Your task to perform on an android device: Open maps Image 0: 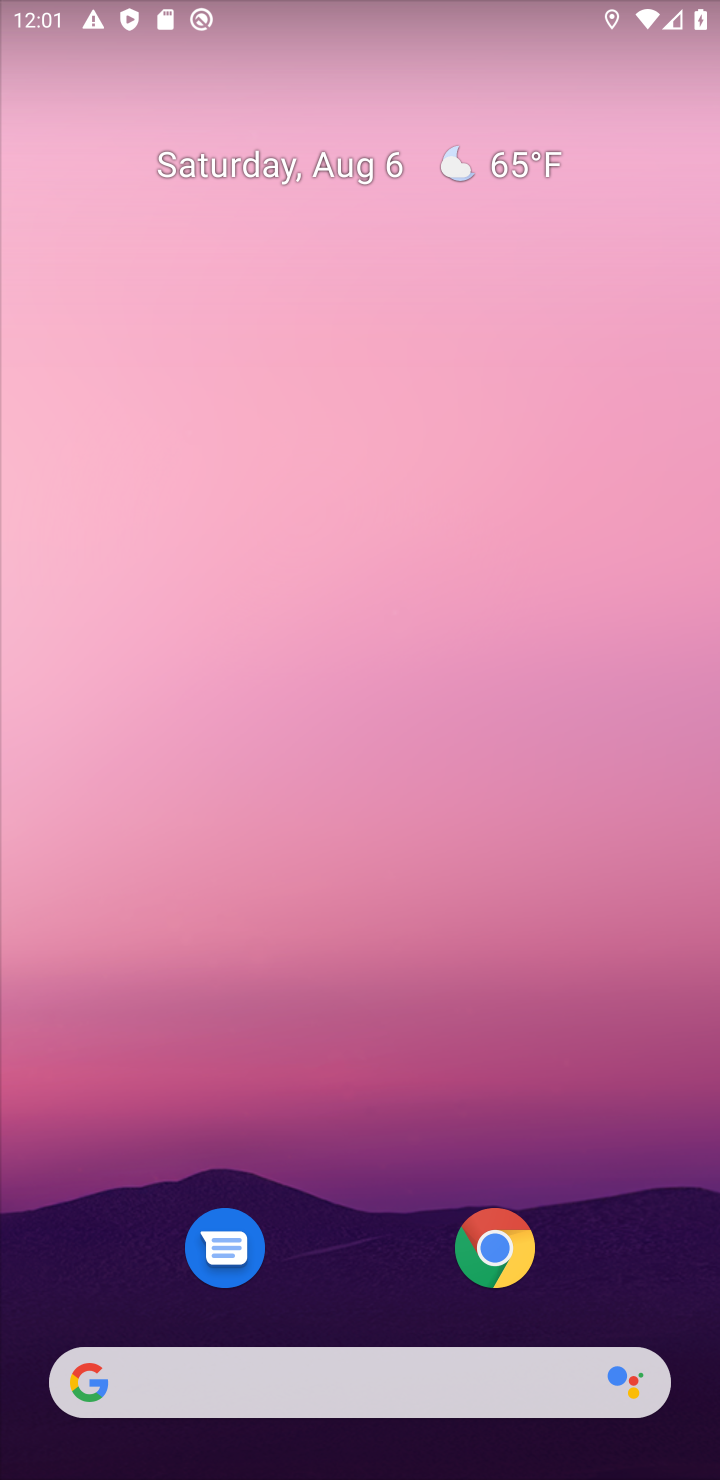
Step 0: drag from (366, 1311) to (353, 59)
Your task to perform on an android device: Open maps Image 1: 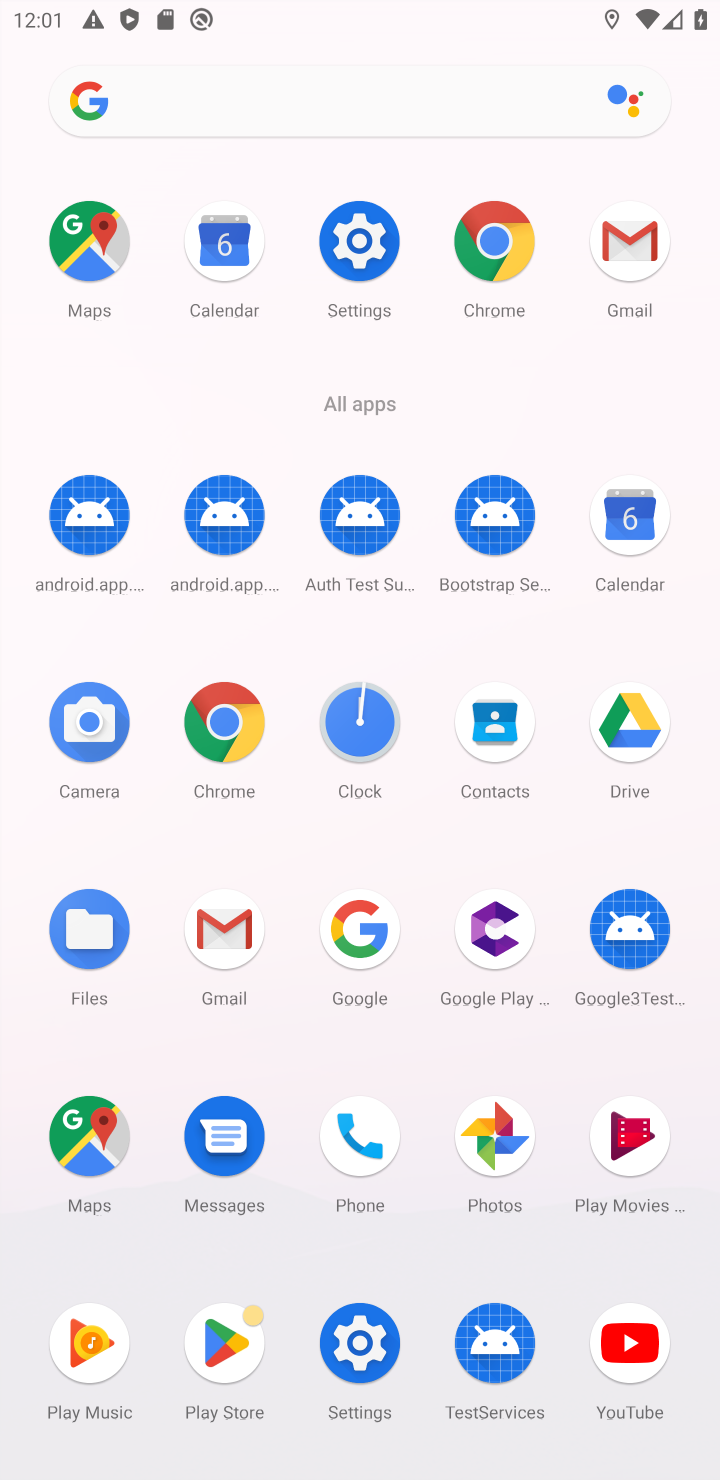
Step 1: click (95, 1127)
Your task to perform on an android device: Open maps Image 2: 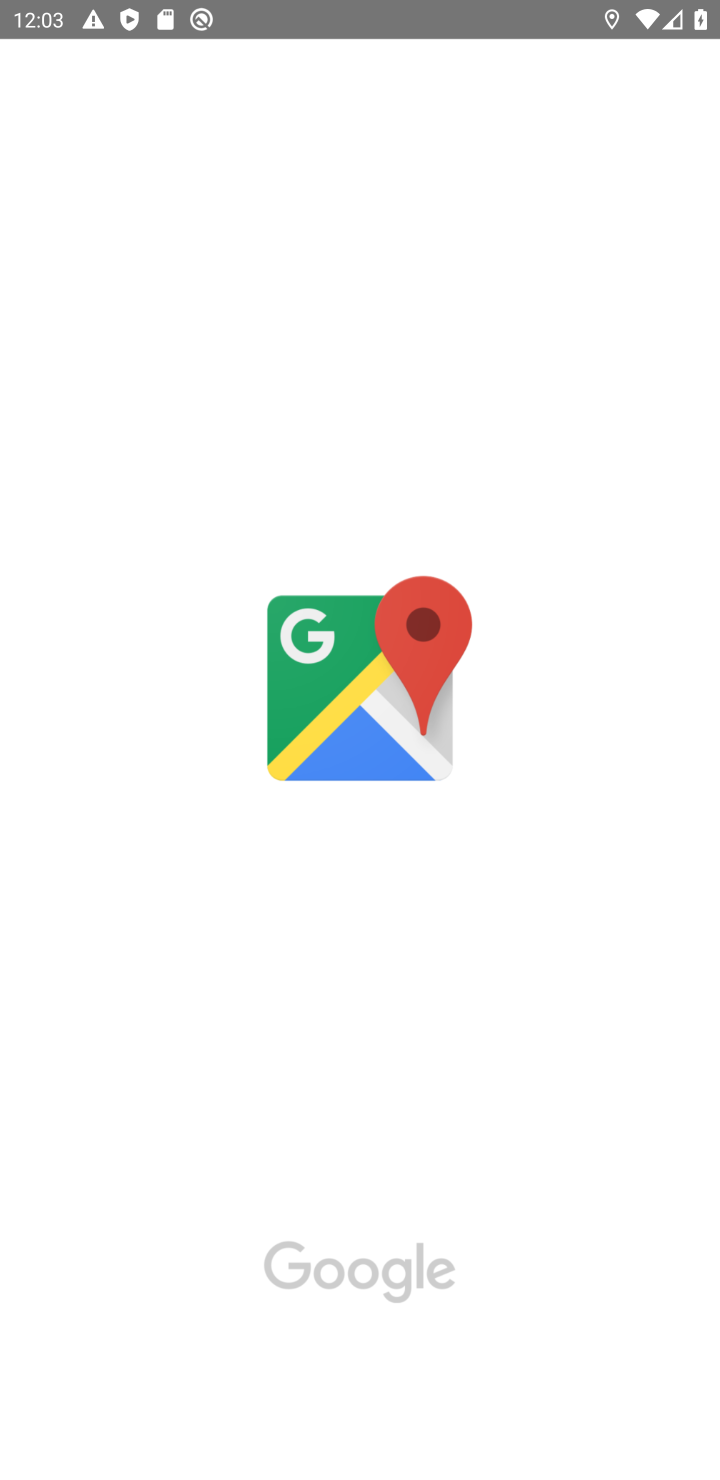
Step 2: task complete